Your task to perform on an android device: Do I have any events tomorrow? Image 0: 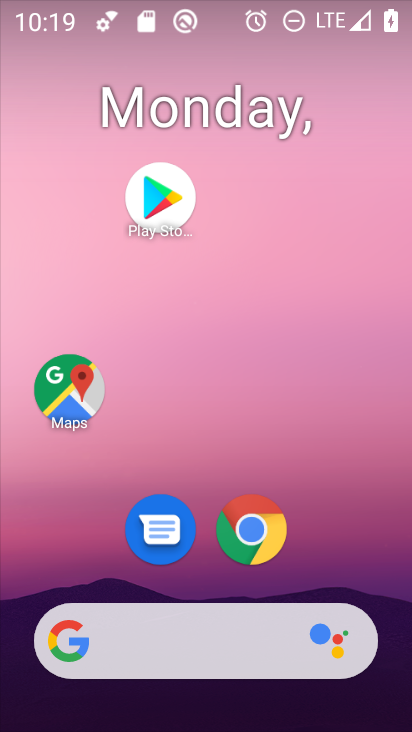
Step 0: drag from (333, 473) to (193, 6)
Your task to perform on an android device: Do I have any events tomorrow? Image 1: 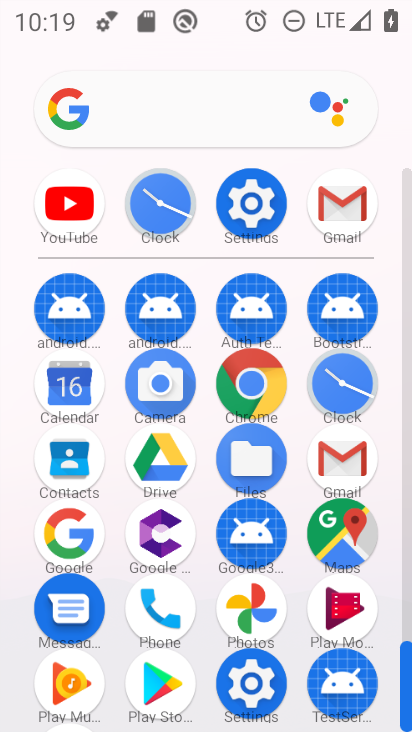
Step 1: click (68, 388)
Your task to perform on an android device: Do I have any events tomorrow? Image 2: 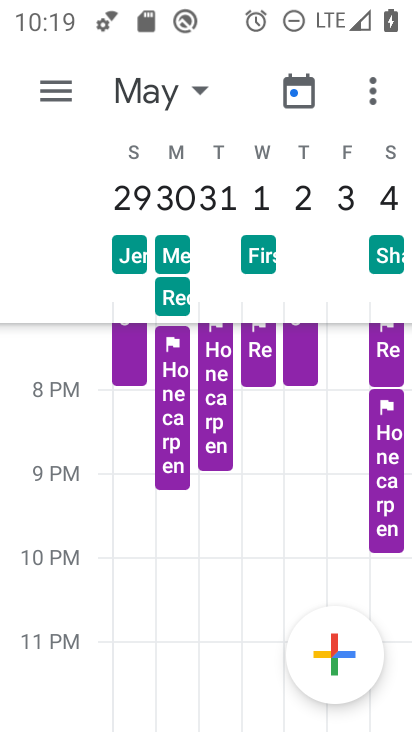
Step 2: click (60, 84)
Your task to perform on an android device: Do I have any events tomorrow? Image 3: 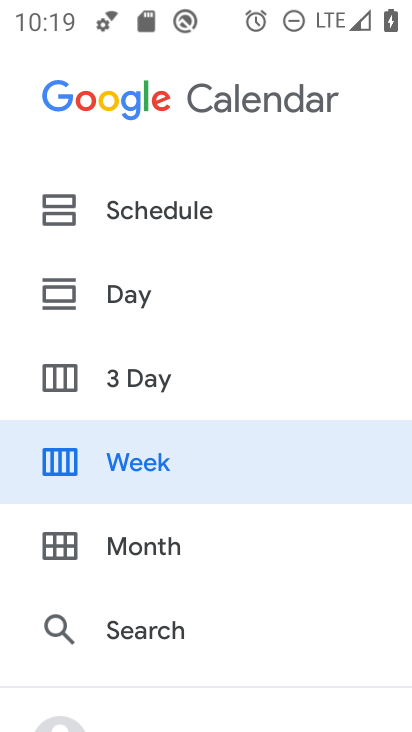
Step 3: click (125, 288)
Your task to perform on an android device: Do I have any events tomorrow? Image 4: 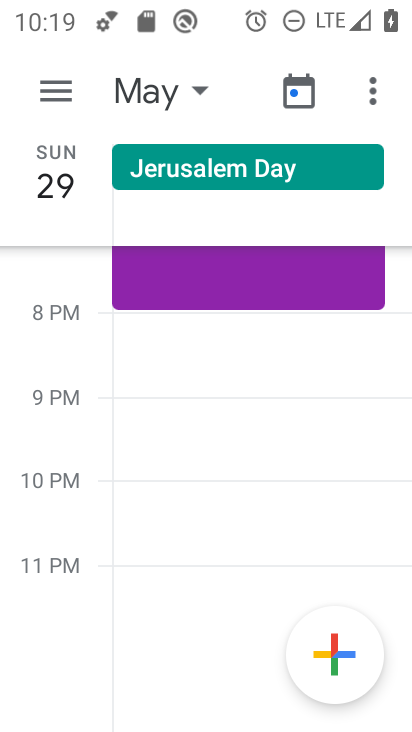
Step 4: click (181, 88)
Your task to perform on an android device: Do I have any events tomorrow? Image 5: 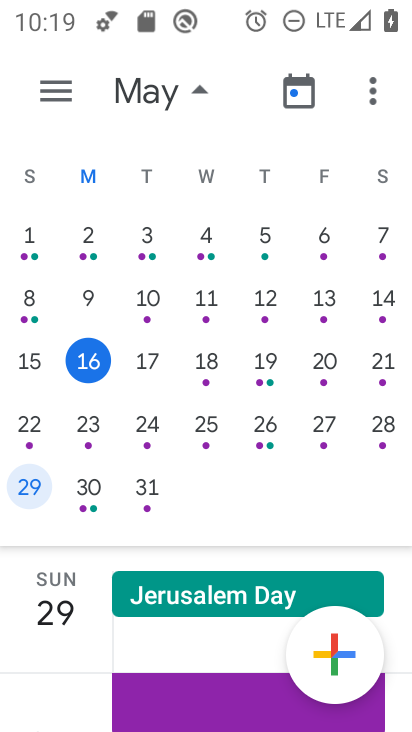
Step 5: click (86, 361)
Your task to perform on an android device: Do I have any events tomorrow? Image 6: 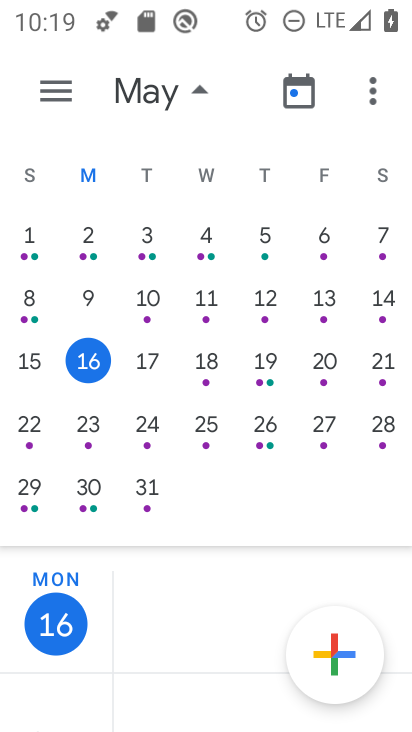
Step 6: click (147, 358)
Your task to perform on an android device: Do I have any events tomorrow? Image 7: 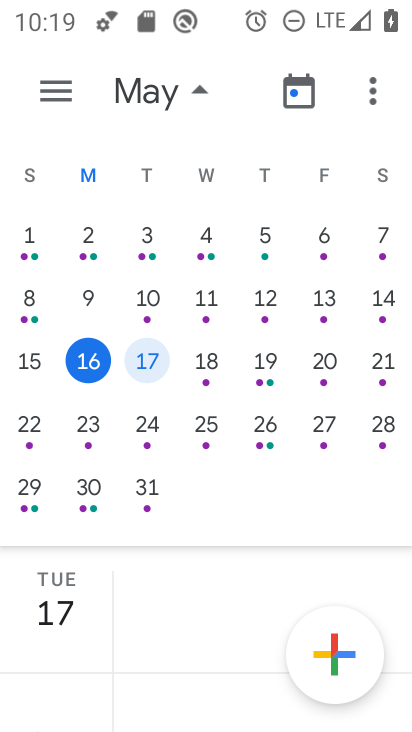
Step 7: task complete